Your task to perform on an android device: Turn off the flashlight Image 0: 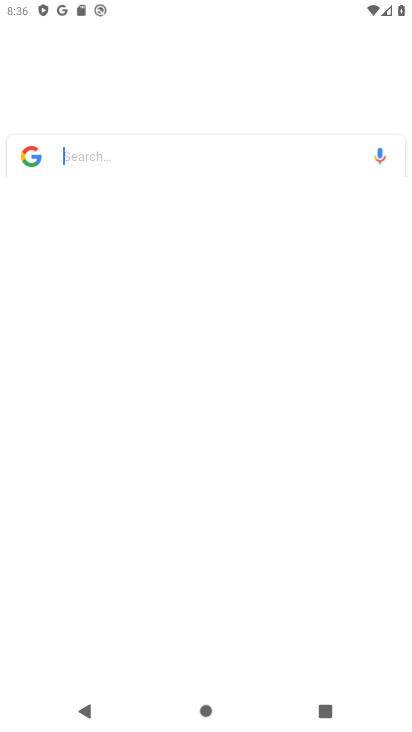
Step 0: drag from (193, 515) to (271, 316)
Your task to perform on an android device: Turn off the flashlight Image 1: 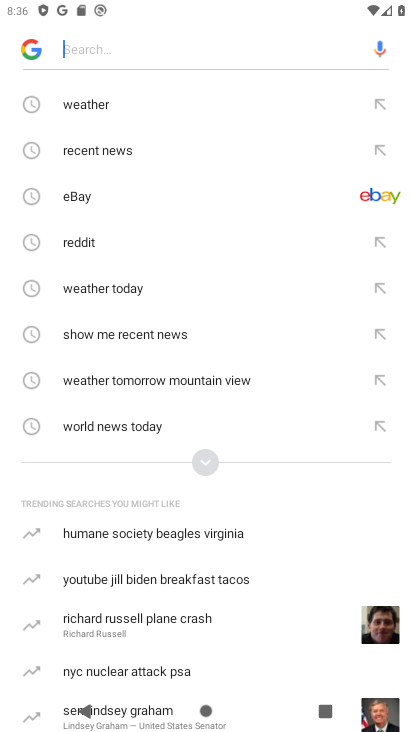
Step 1: task complete